Your task to perform on an android device: Go to Amazon Image 0: 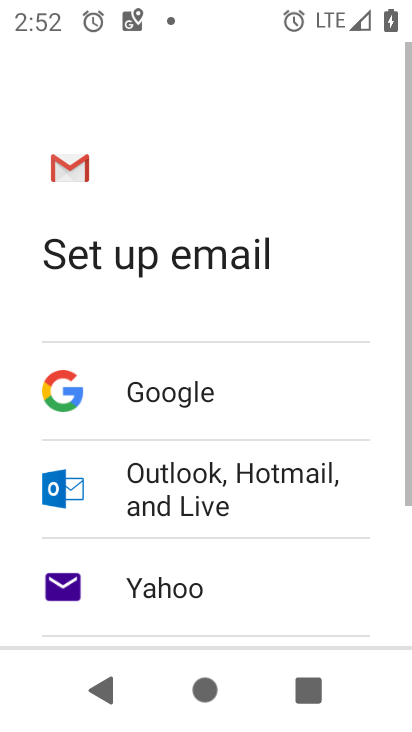
Step 0: press home button
Your task to perform on an android device: Go to Amazon Image 1: 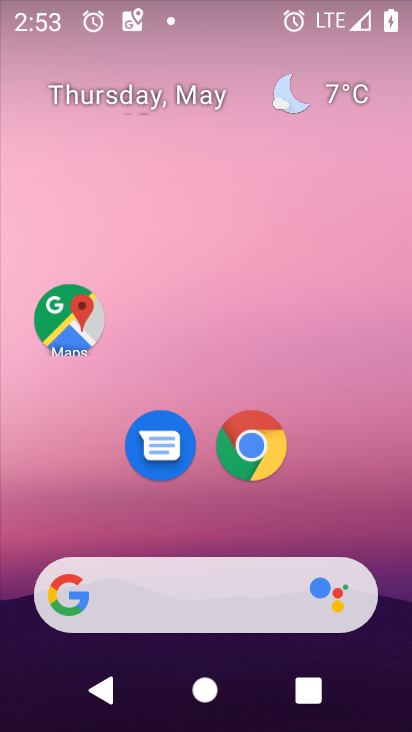
Step 1: click (248, 456)
Your task to perform on an android device: Go to Amazon Image 2: 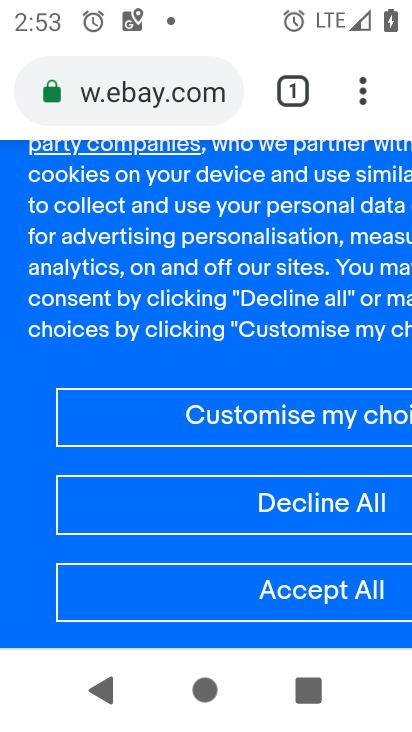
Step 2: click (121, 93)
Your task to perform on an android device: Go to Amazon Image 3: 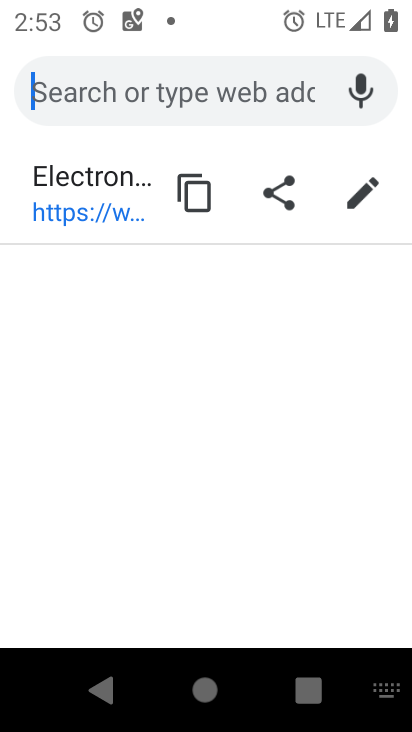
Step 3: type "amazon"
Your task to perform on an android device: Go to Amazon Image 4: 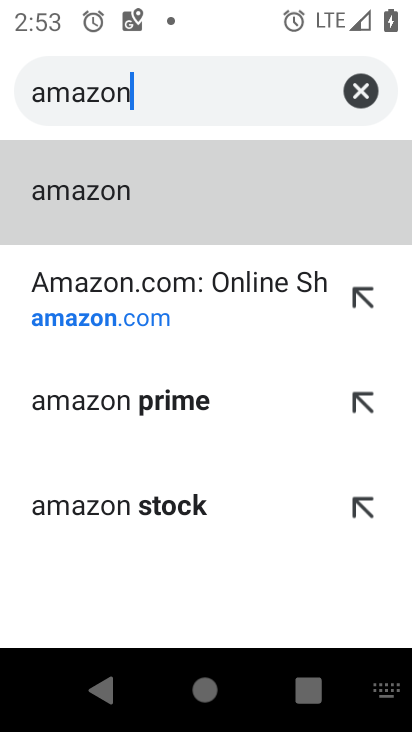
Step 4: click (136, 207)
Your task to perform on an android device: Go to Amazon Image 5: 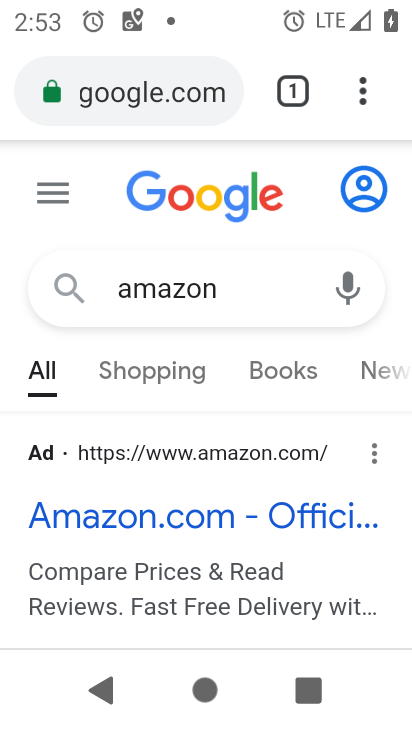
Step 5: click (40, 529)
Your task to perform on an android device: Go to Amazon Image 6: 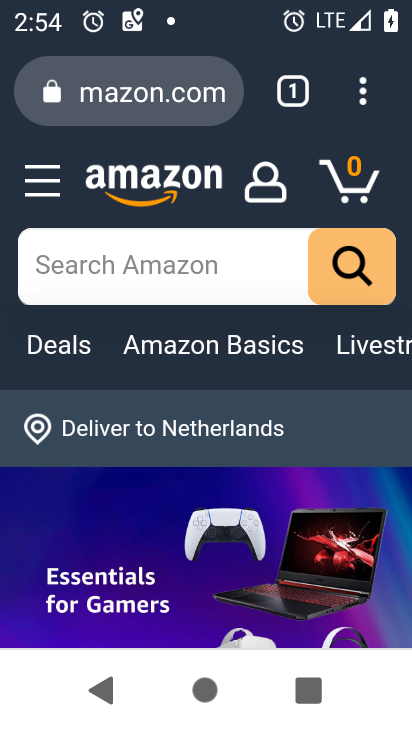
Step 6: task complete